Your task to perform on an android device: change the clock display to digital Image 0: 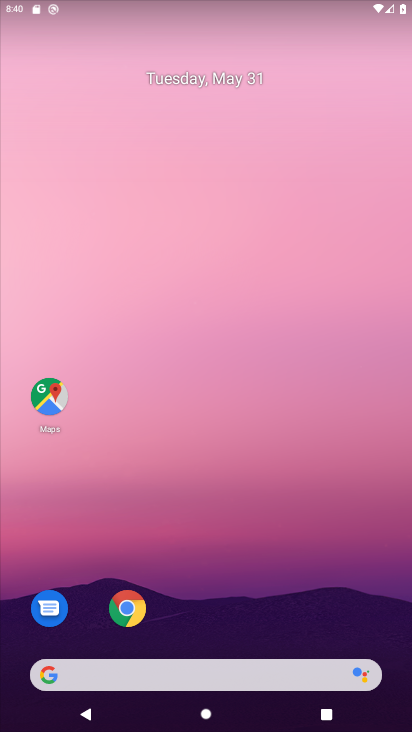
Step 0: drag from (252, 604) to (208, 156)
Your task to perform on an android device: change the clock display to digital Image 1: 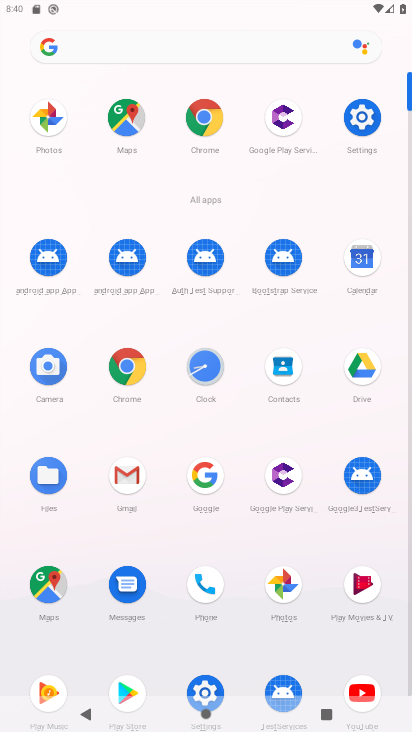
Step 1: click (205, 365)
Your task to perform on an android device: change the clock display to digital Image 2: 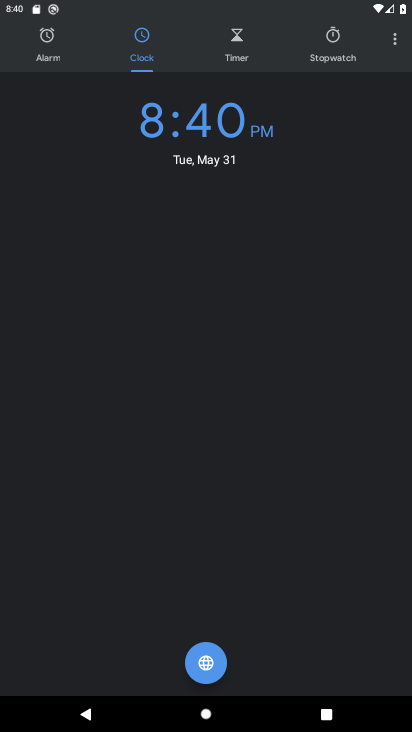
Step 2: click (397, 41)
Your task to perform on an android device: change the clock display to digital Image 3: 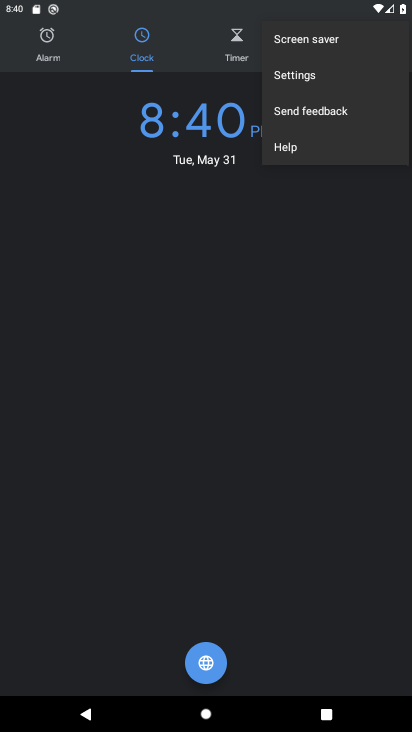
Step 3: click (298, 72)
Your task to perform on an android device: change the clock display to digital Image 4: 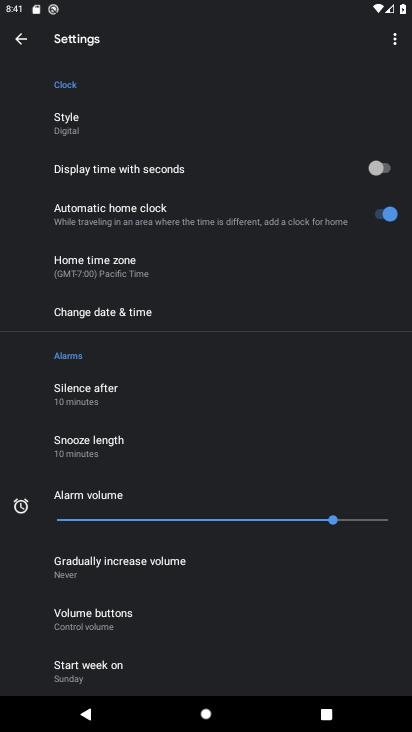
Step 4: click (68, 122)
Your task to perform on an android device: change the clock display to digital Image 5: 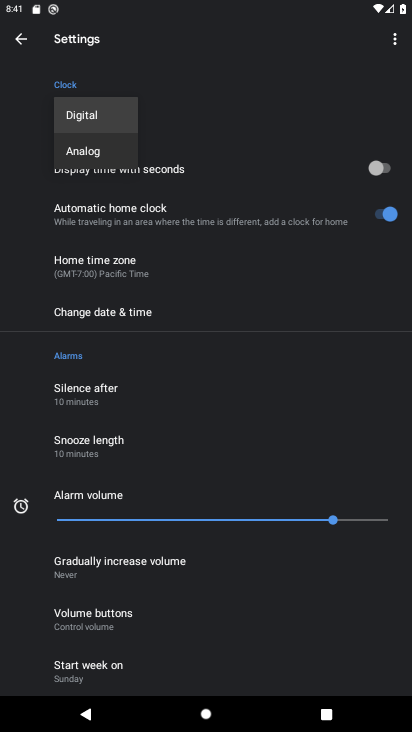
Step 5: click (68, 123)
Your task to perform on an android device: change the clock display to digital Image 6: 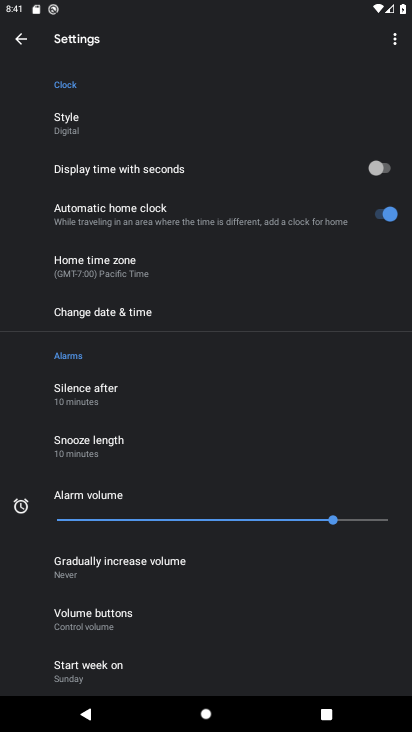
Step 6: task complete